Your task to perform on an android device: Search for seafood restaurants on Google Maps Image 0: 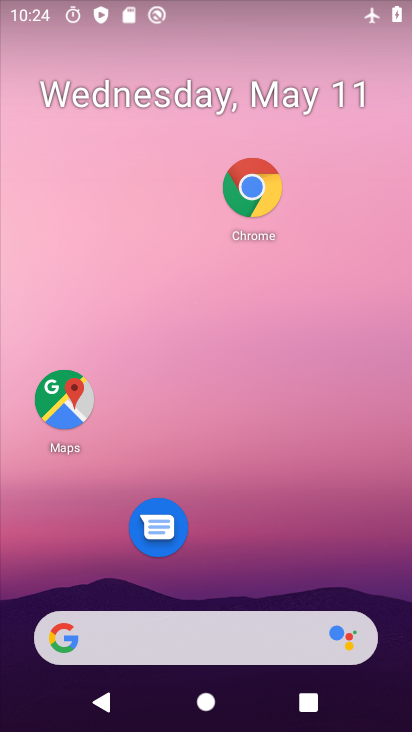
Step 0: drag from (305, 533) to (336, 229)
Your task to perform on an android device: Search for seafood restaurants on Google Maps Image 1: 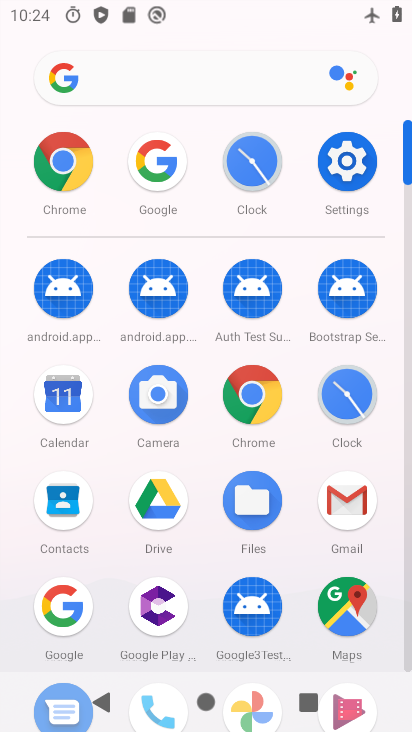
Step 1: drag from (346, 620) to (354, 408)
Your task to perform on an android device: Search for seafood restaurants on Google Maps Image 2: 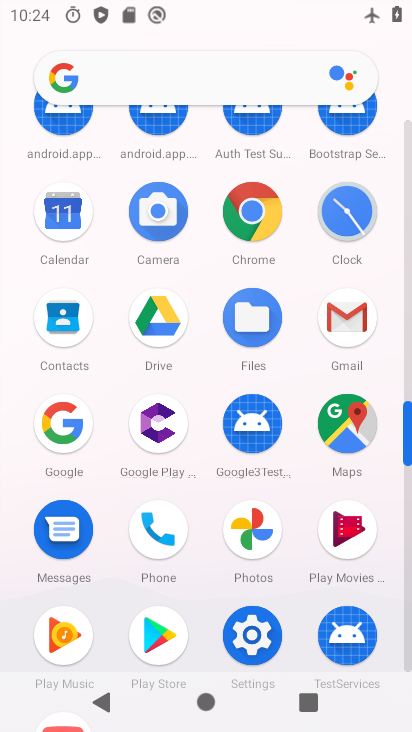
Step 2: click (349, 439)
Your task to perform on an android device: Search for seafood restaurants on Google Maps Image 3: 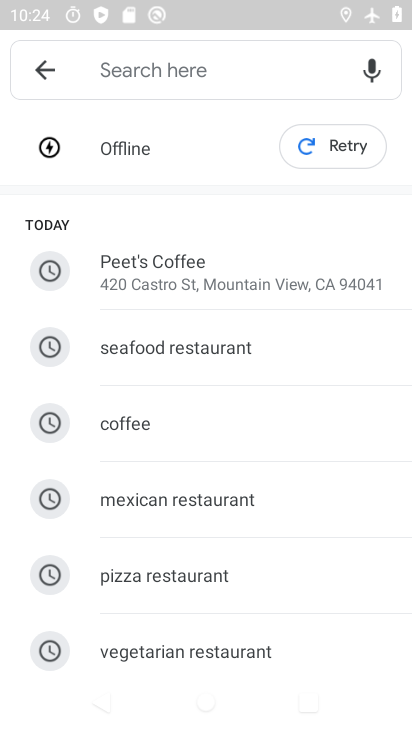
Step 3: click (187, 353)
Your task to perform on an android device: Search for seafood restaurants on Google Maps Image 4: 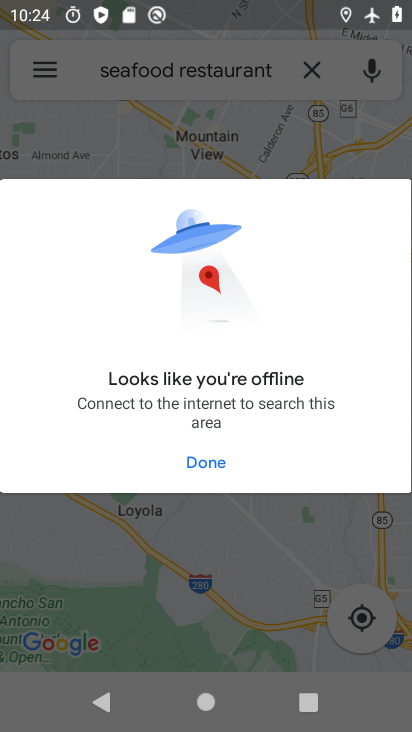
Step 4: click (187, 353)
Your task to perform on an android device: Search for seafood restaurants on Google Maps Image 5: 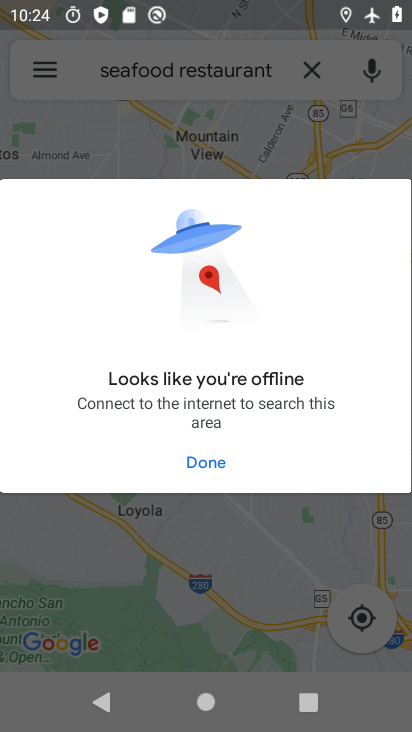
Step 5: task complete